Your task to perform on an android device: What's on my calendar tomorrow? Image 0: 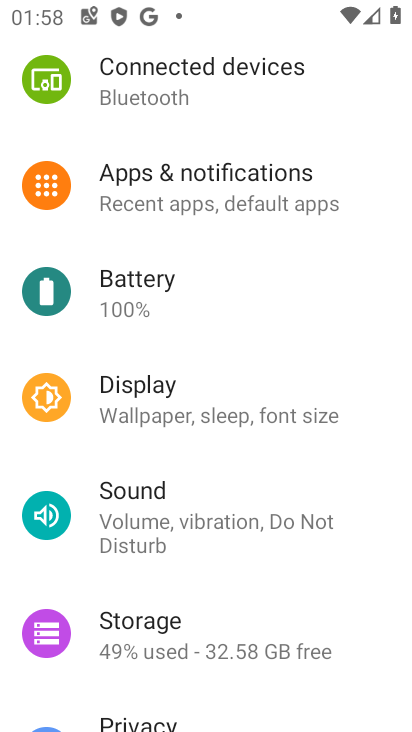
Step 0: press home button
Your task to perform on an android device: What's on my calendar tomorrow? Image 1: 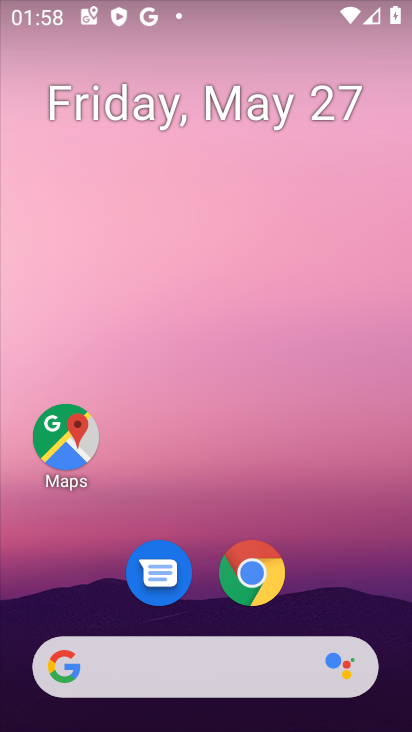
Step 1: drag from (223, 620) to (231, 13)
Your task to perform on an android device: What's on my calendar tomorrow? Image 2: 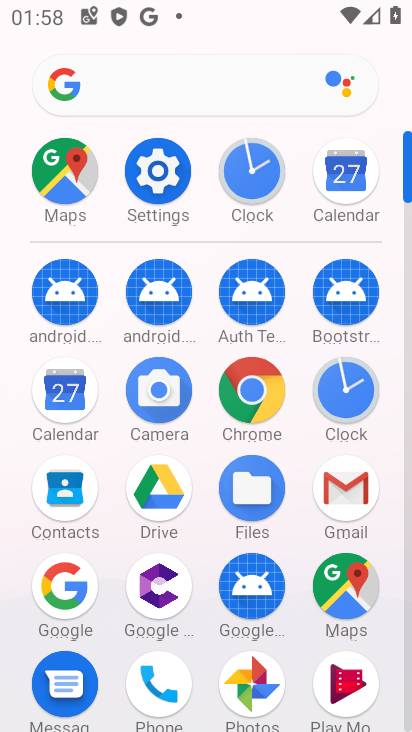
Step 2: click (64, 393)
Your task to perform on an android device: What's on my calendar tomorrow? Image 3: 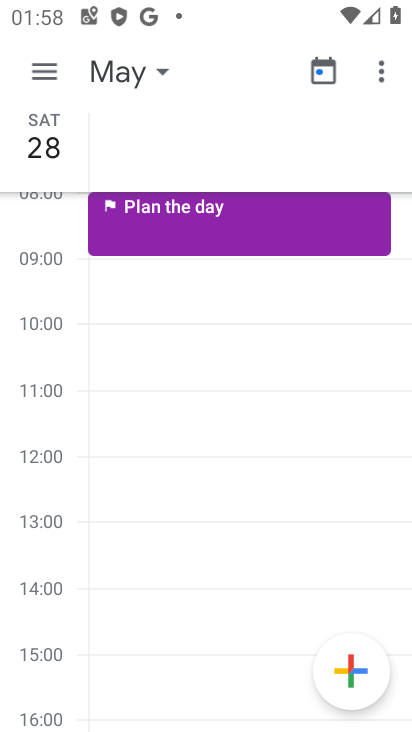
Step 3: click (51, 74)
Your task to perform on an android device: What's on my calendar tomorrow? Image 4: 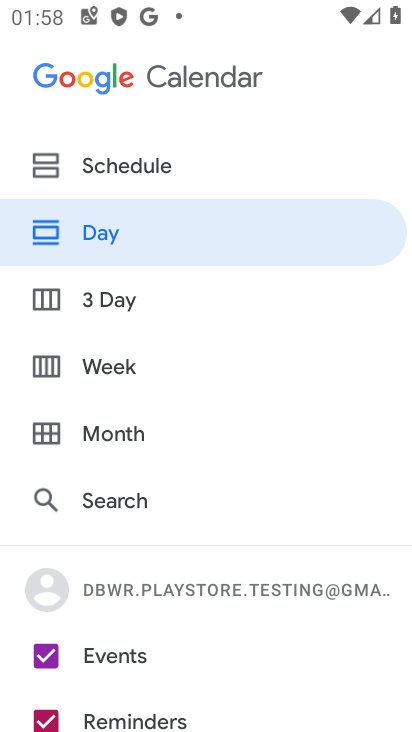
Step 4: click (123, 288)
Your task to perform on an android device: What's on my calendar tomorrow? Image 5: 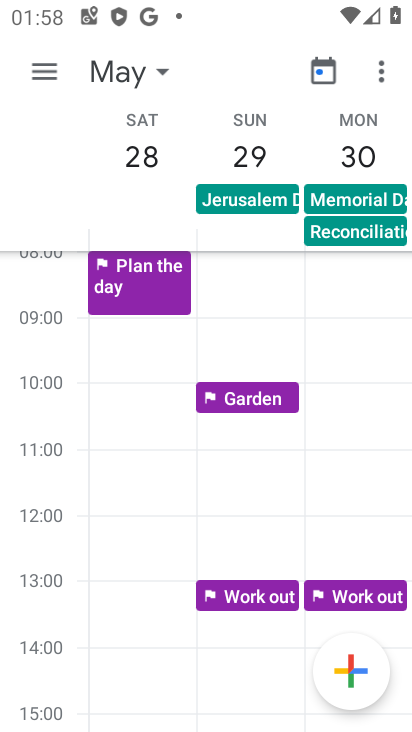
Step 5: drag from (137, 146) to (402, 145)
Your task to perform on an android device: What's on my calendar tomorrow? Image 6: 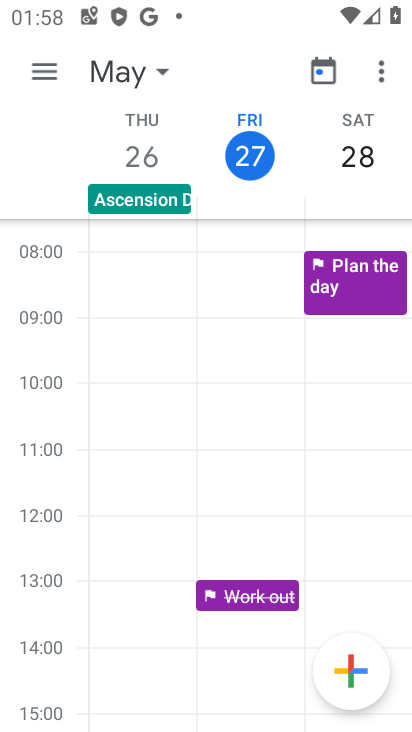
Step 6: click (364, 151)
Your task to perform on an android device: What's on my calendar tomorrow? Image 7: 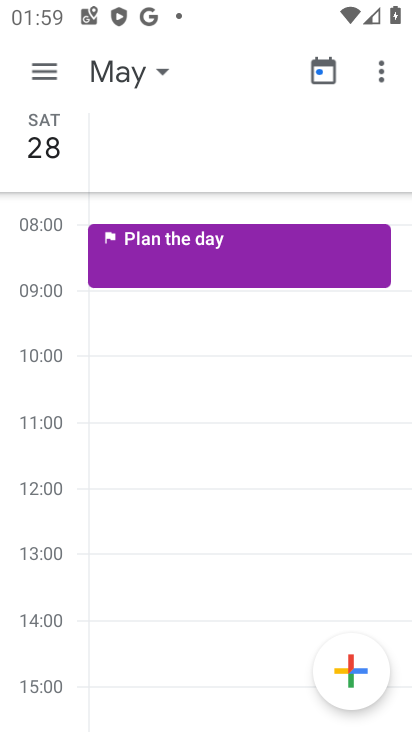
Step 7: press home button
Your task to perform on an android device: What's on my calendar tomorrow? Image 8: 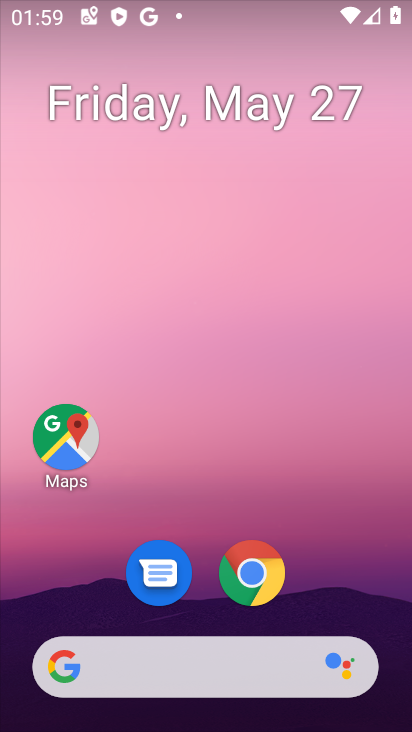
Step 8: drag from (206, 626) to (174, 29)
Your task to perform on an android device: What's on my calendar tomorrow? Image 9: 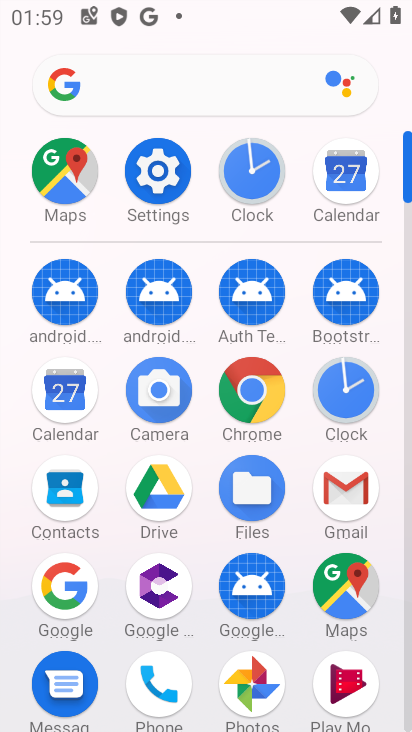
Step 9: click (72, 389)
Your task to perform on an android device: What's on my calendar tomorrow? Image 10: 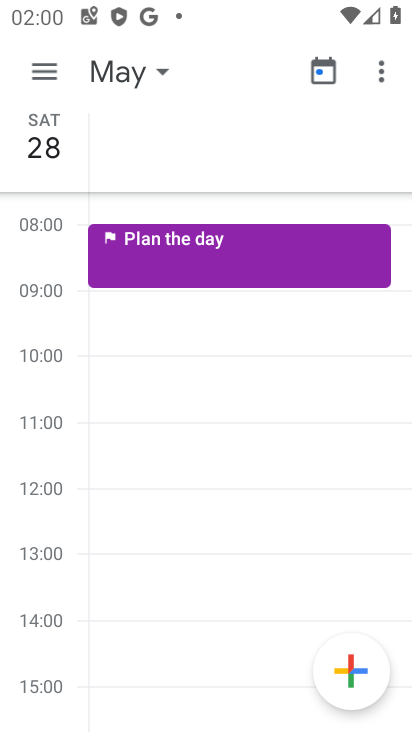
Step 10: click (32, 71)
Your task to perform on an android device: What's on my calendar tomorrow? Image 11: 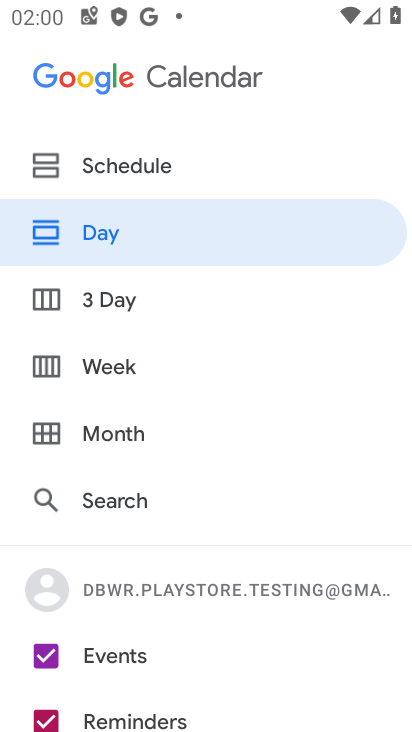
Step 11: click (116, 293)
Your task to perform on an android device: What's on my calendar tomorrow? Image 12: 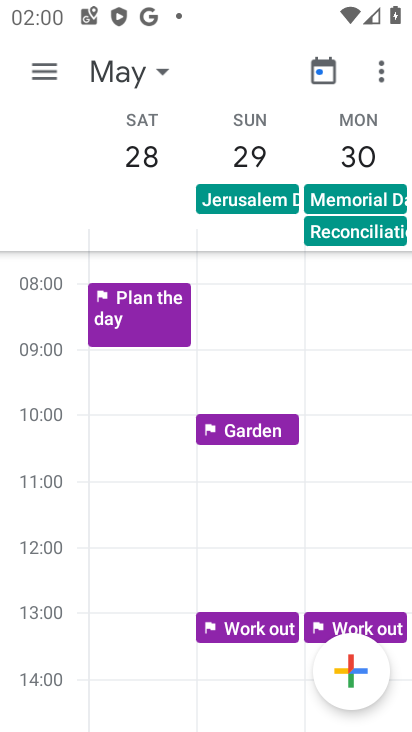
Step 12: drag from (138, 143) to (381, 147)
Your task to perform on an android device: What's on my calendar tomorrow? Image 13: 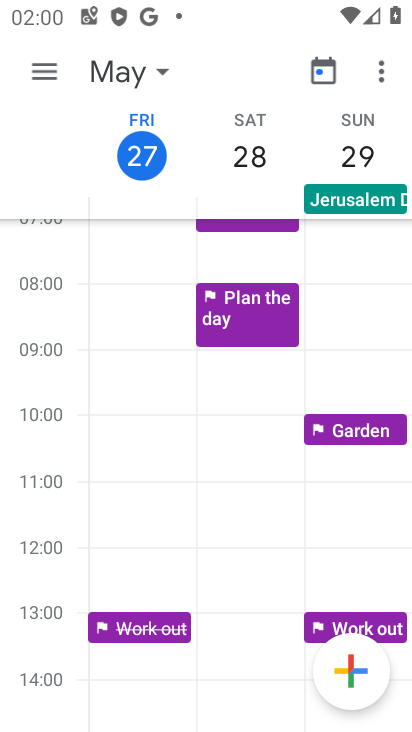
Step 13: click (260, 132)
Your task to perform on an android device: What's on my calendar tomorrow? Image 14: 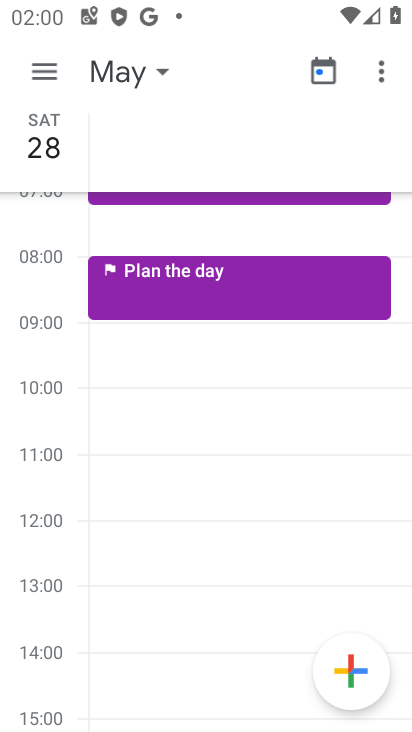
Step 14: task complete